Your task to perform on an android device: turn pop-ups off in chrome Image 0: 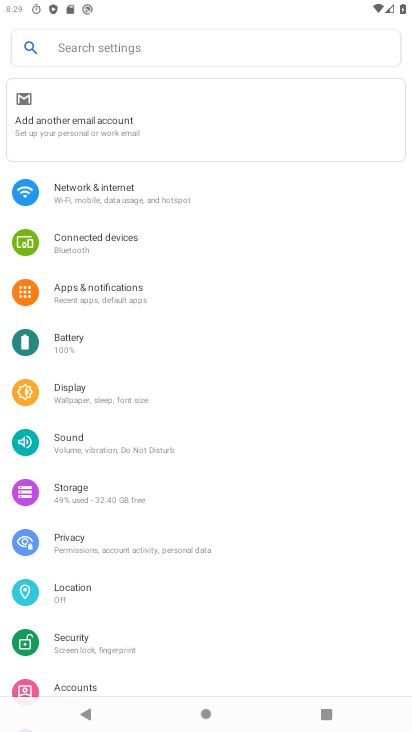
Step 0: press home button
Your task to perform on an android device: turn pop-ups off in chrome Image 1: 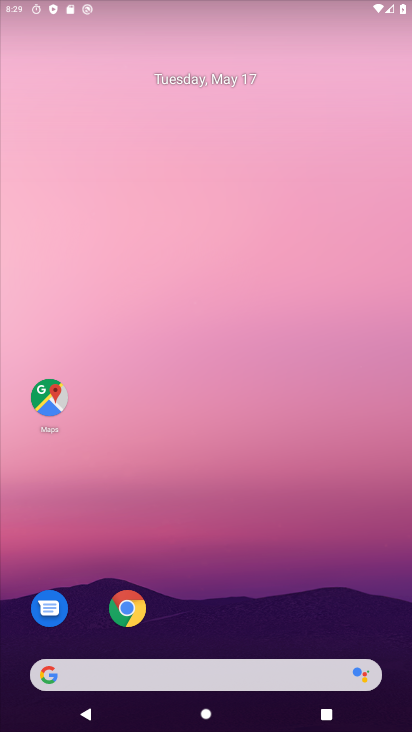
Step 1: drag from (353, 600) to (324, 215)
Your task to perform on an android device: turn pop-ups off in chrome Image 2: 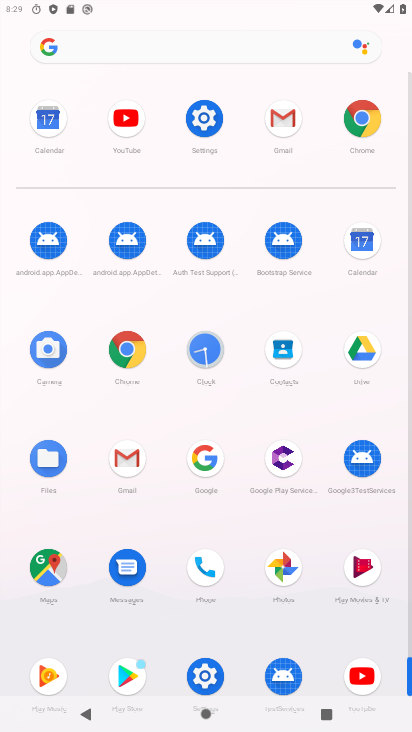
Step 2: click (133, 346)
Your task to perform on an android device: turn pop-ups off in chrome Image 3: 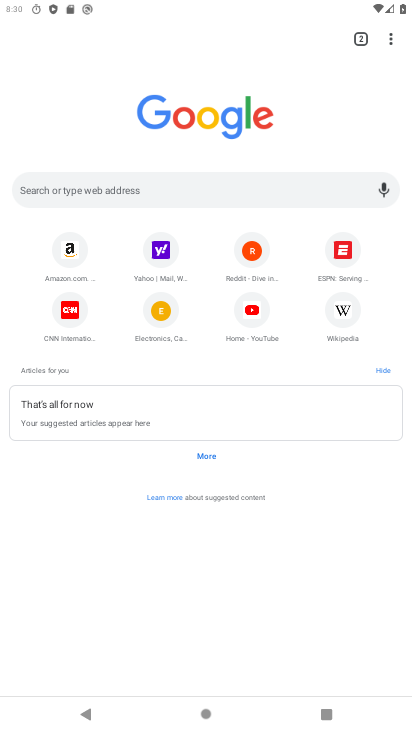
Step 3: drag from (387, 33) to (294, 324)
Your task to perform on an android device: turn pop-ups off in chrome Image 4: 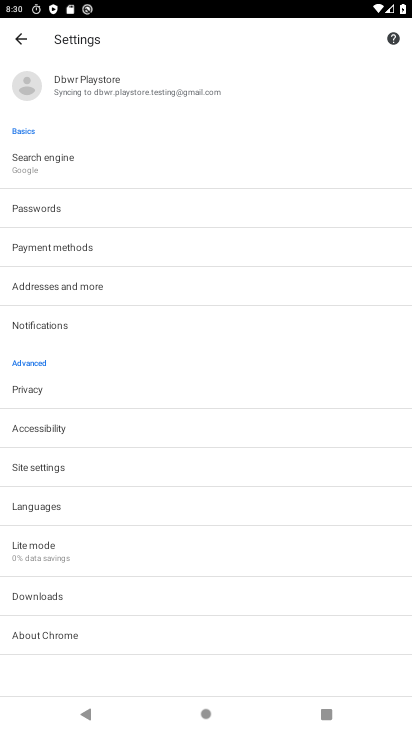
Step 4: drag from (231, 633) to (253, 370)
Your task to perform on an android device: turn pop-ups off in chrome Image 5: 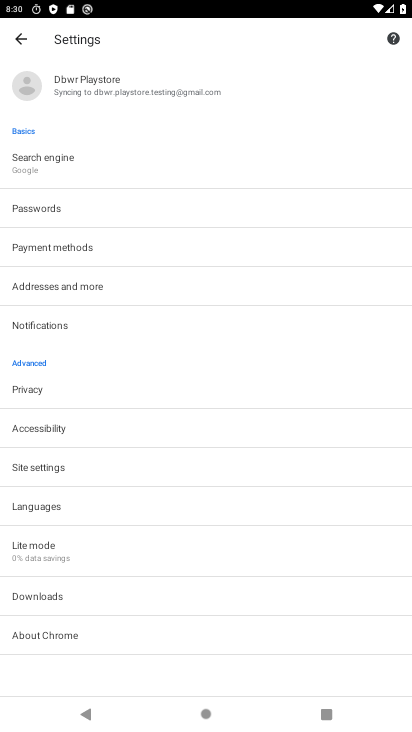
Step 5: click (58, 475)
Your task to perform on an android device: turn pop-ups off in chrome Image 6: 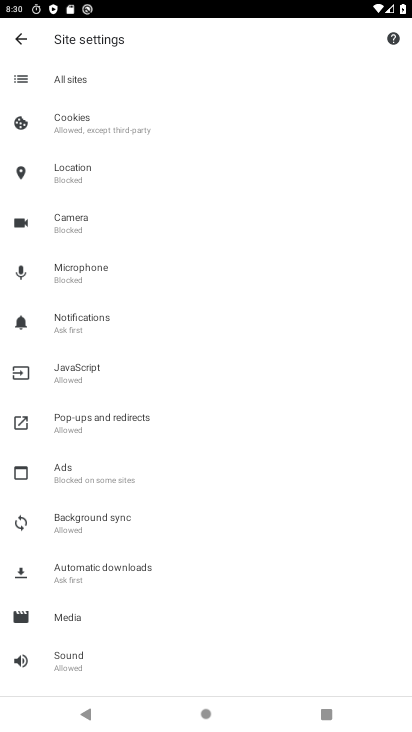
Step 6: click (127, 414)
Your task to perform on an android device: turn pop-ups off in chrome Image 7: 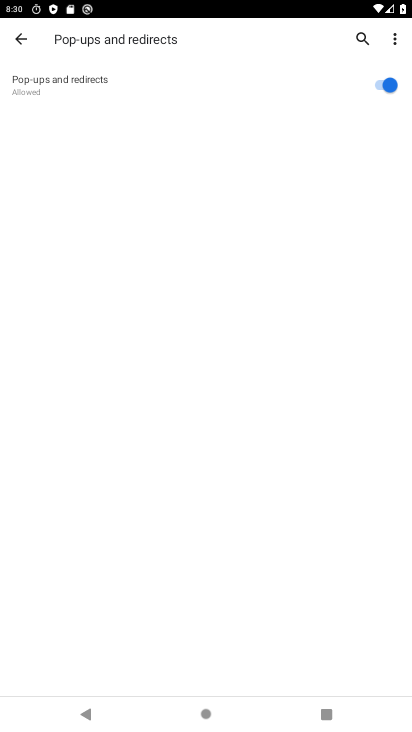
Step 7: click (381, 83)
Your task to perform on an android device: turn pop-ups off in chrome Image 8: 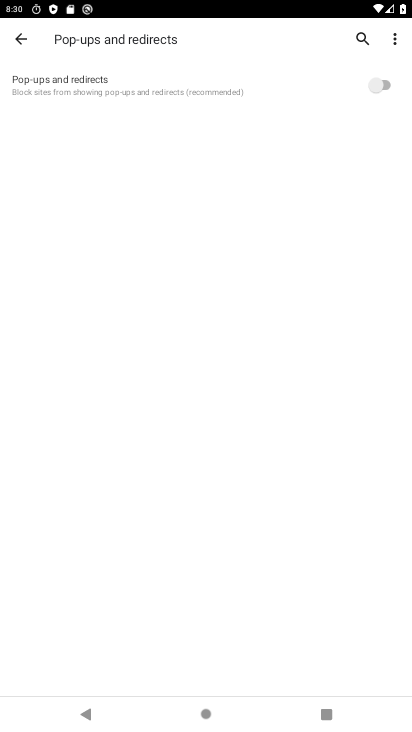
Step 8: task complete